Your task to perform on an android device: Open the map Image 0: 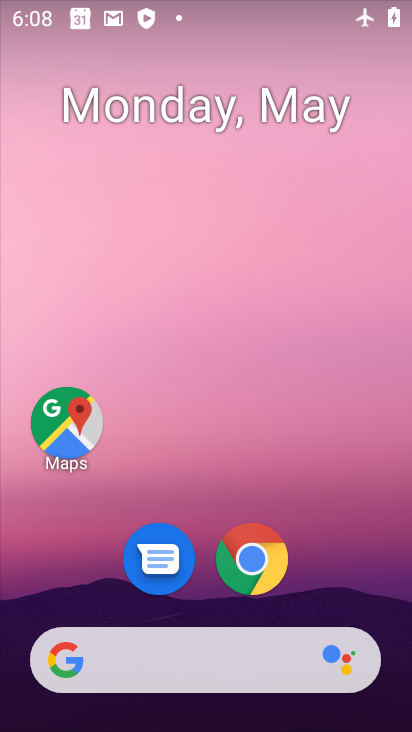
Step 0: click (54, 433)
Your task to perform on an android device: Open the map Image 1: 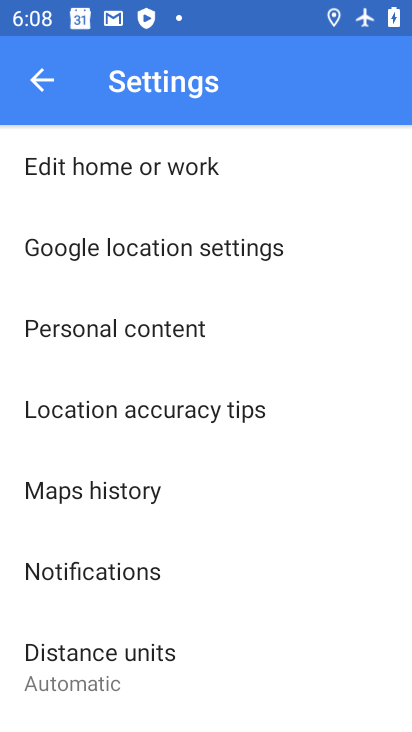
Step 1: click (32, 73)
Your task to perform on an android device: Open the map Image 2: 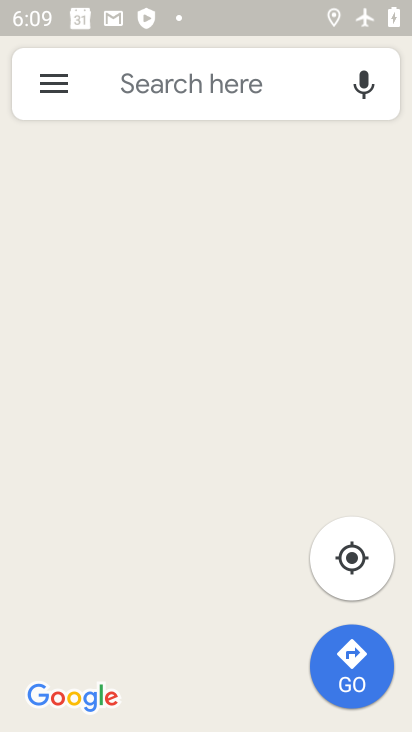
Step 2: task complete